Your task to perform on an android device: Show the shopping cart on bestbuy.com. Add macbook to the cart on bestbuy.com, then select checkout. Image 0: 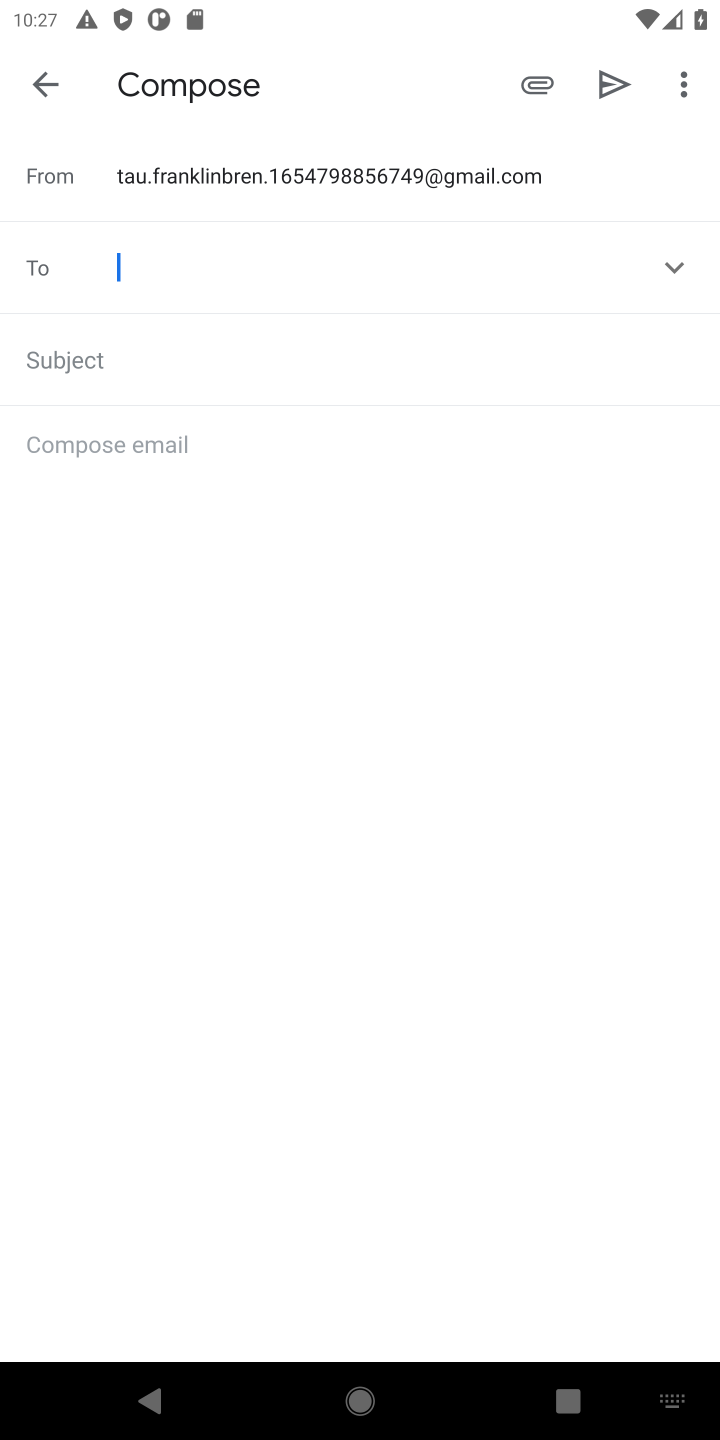
Step 0: press home button
Your task to perform on an android device: Show the shopping cart on bestbuy.com. Add macbook to the cart on bestbuy.com, then select checkout. Image 1: 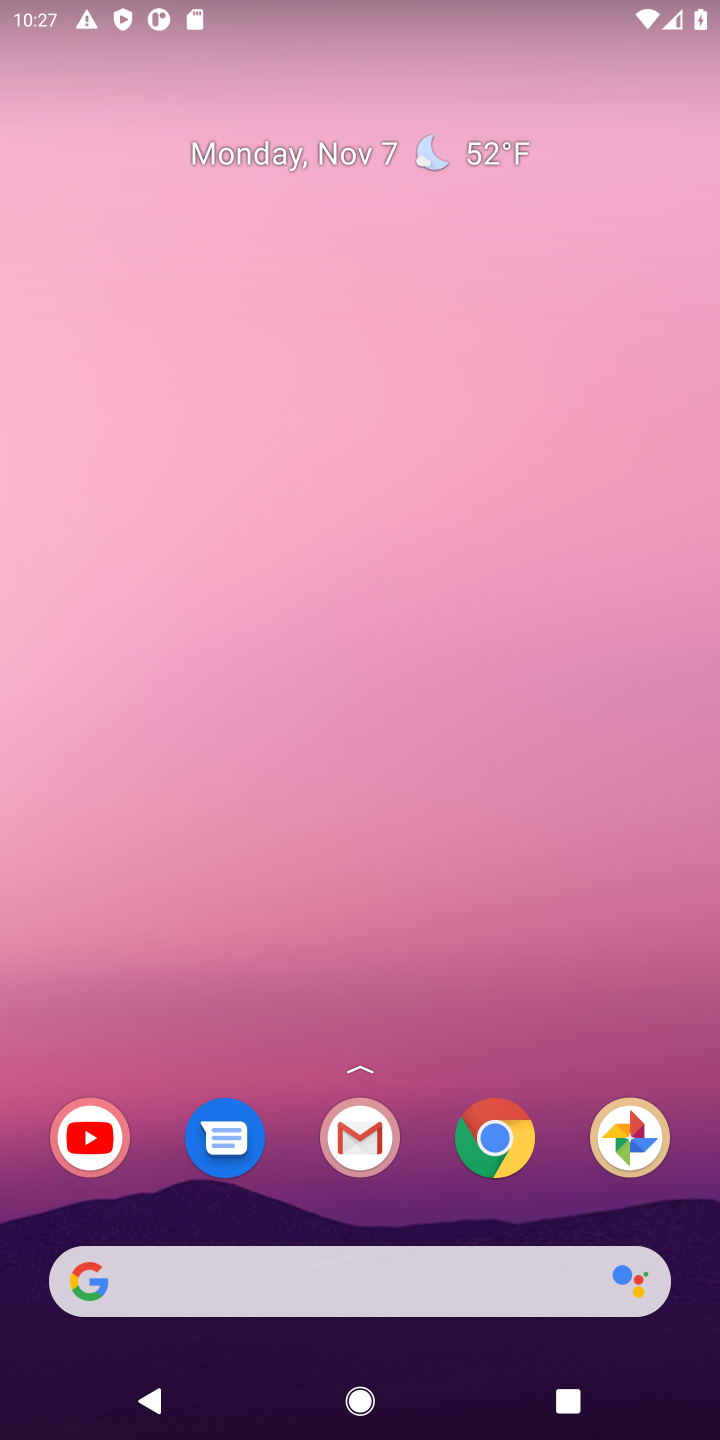
Step 1: click (473, 1155)
Your task to perform on an android device: Show the shopping cart on bestbuy.com. Add macbook to the cart on bestbuy.com, then select checkout. Image 2: 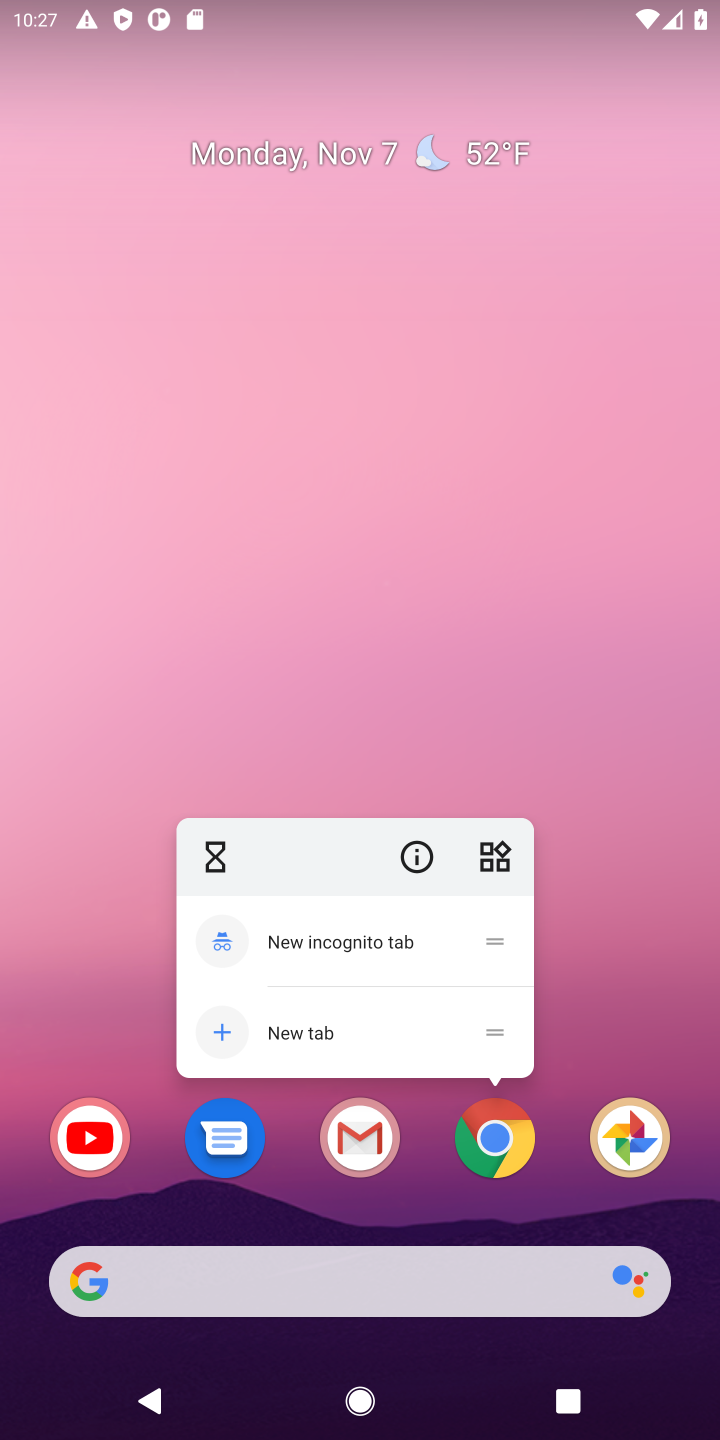
Step 2: click (481, 1146)
Your task to perform on an android device: Show the shopping cart on bestbuy.com. Add macbook to the cart on bestbuy.com, then select checkout. Image 3: 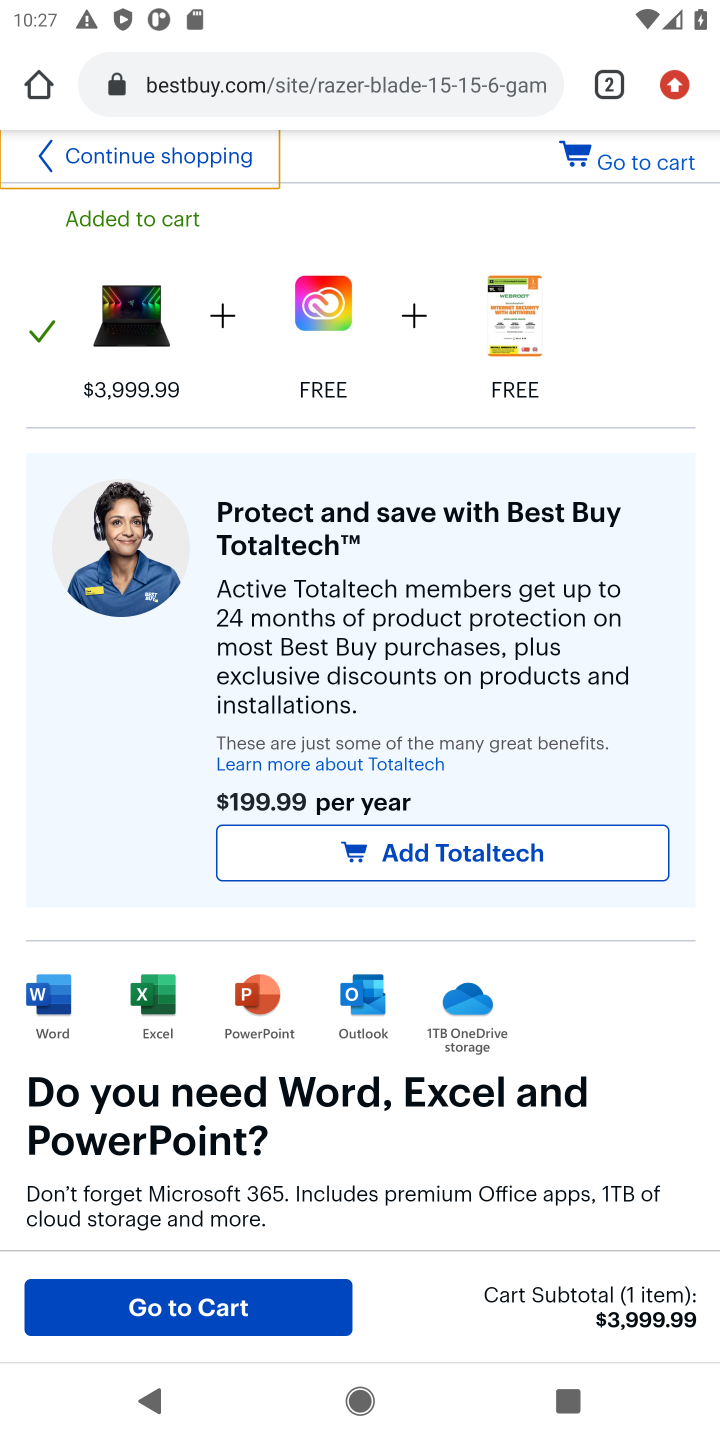
Step 3: click (265, 71)
Your task to perform on an android device: Show the shopping cart on bestbuy.com. Add macbook to the cart on bestbuy.com, then select checkout. Image 4: 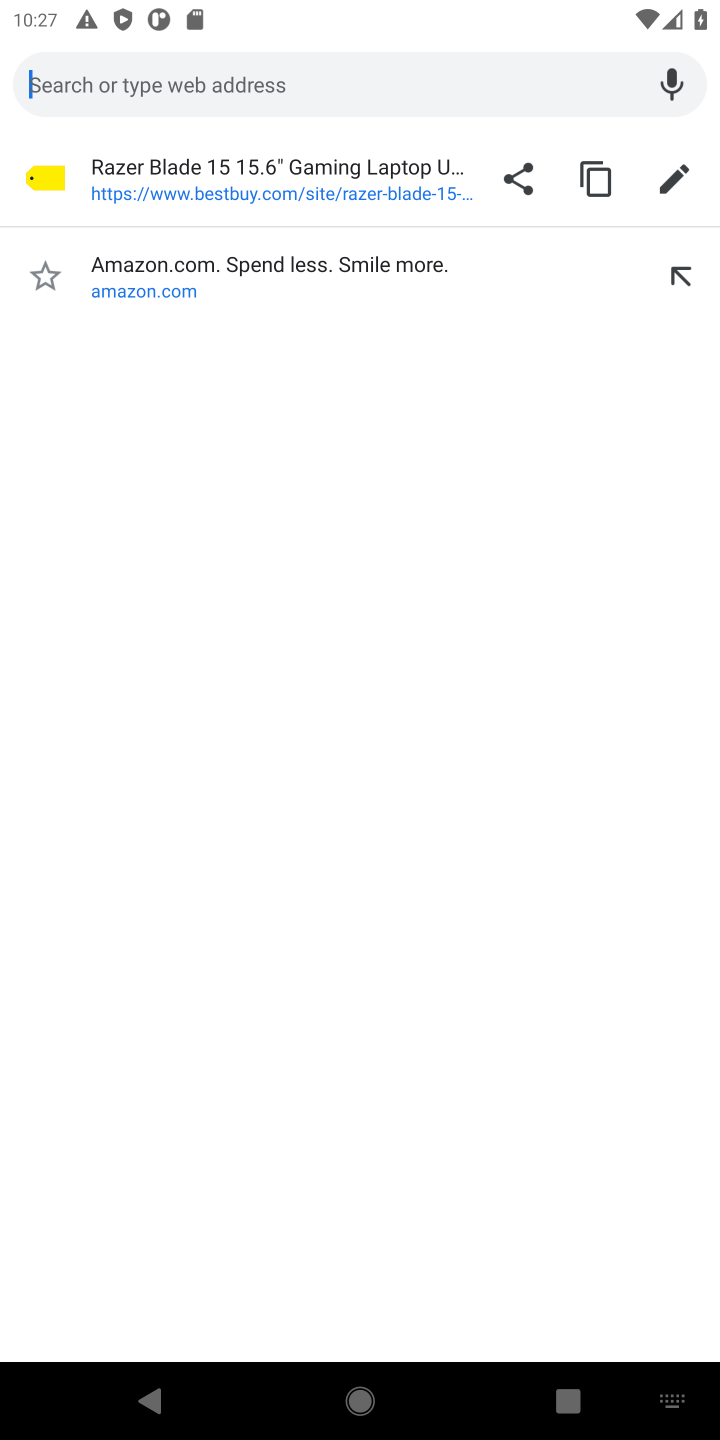
Step 4: type "bestbuy"
Your task to perform on an android device: Show the shopping cart on bestbuy.com. Add macbook to the cart on bestbuy.com, then select checkout. Image 5: 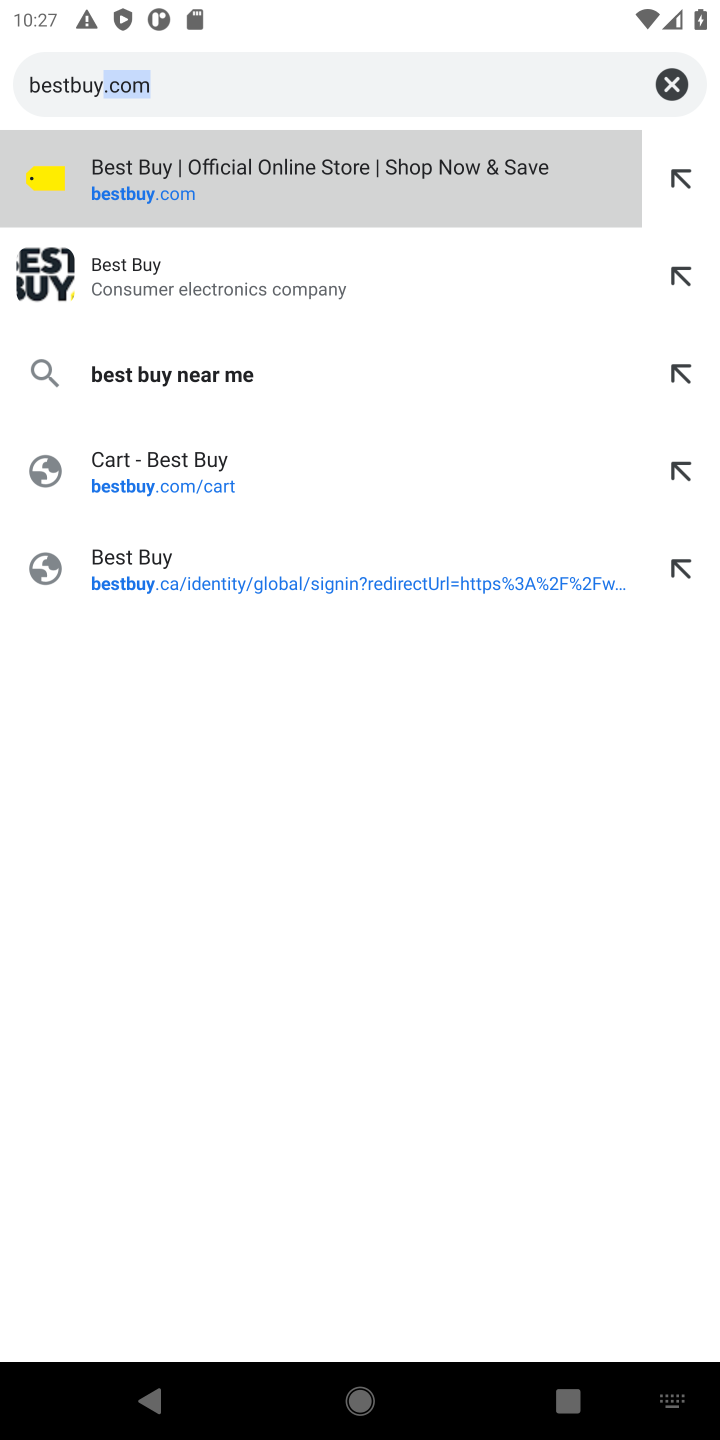
Step 5: click (168, 272)
Your task to perform on an android device: Show the shopping cart on bestbuy.com. Add macbook to the cart on bestbuy.com, then select checkout. Image 6: 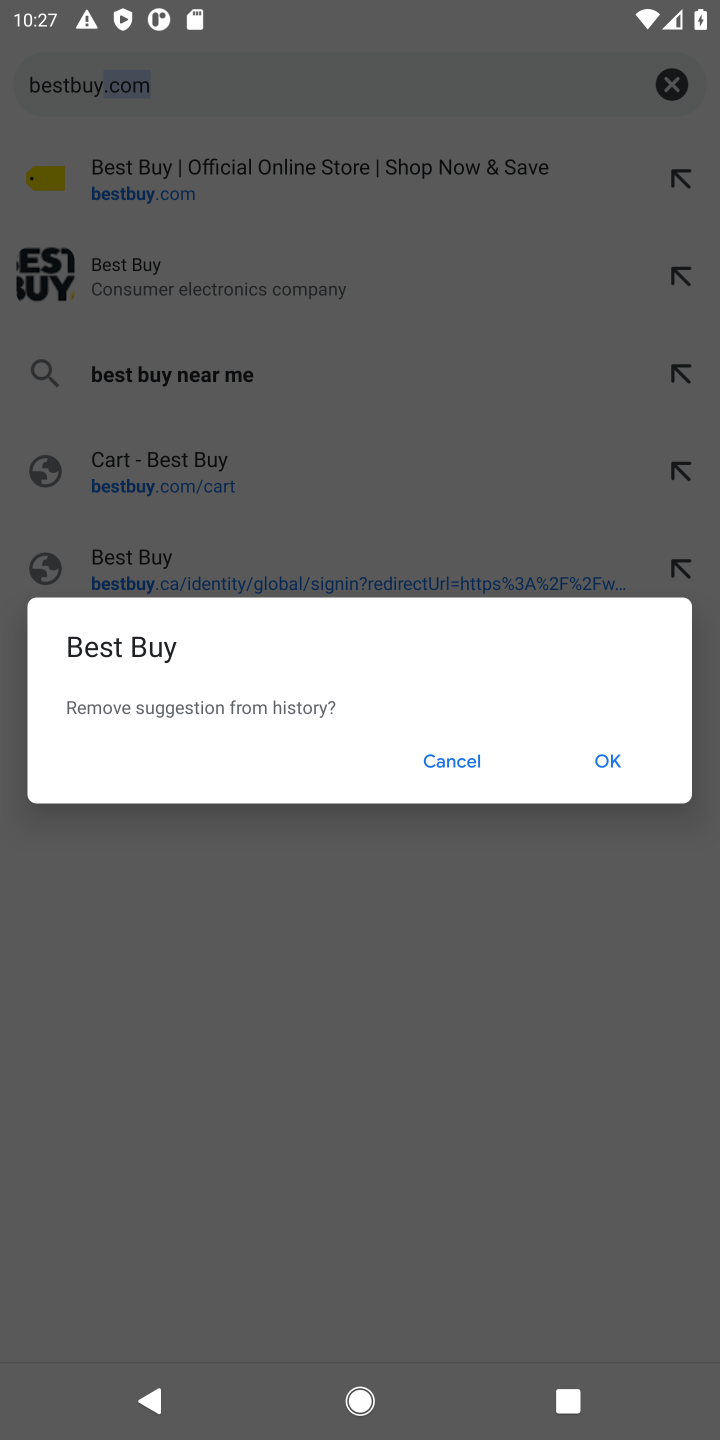
Step 6: click (605, 758)
Your task to perform on an android device: Show the shopping cart on bestbuy.com. Add macbook to the cart on bestbuy.com, then select checkout. Image 7: 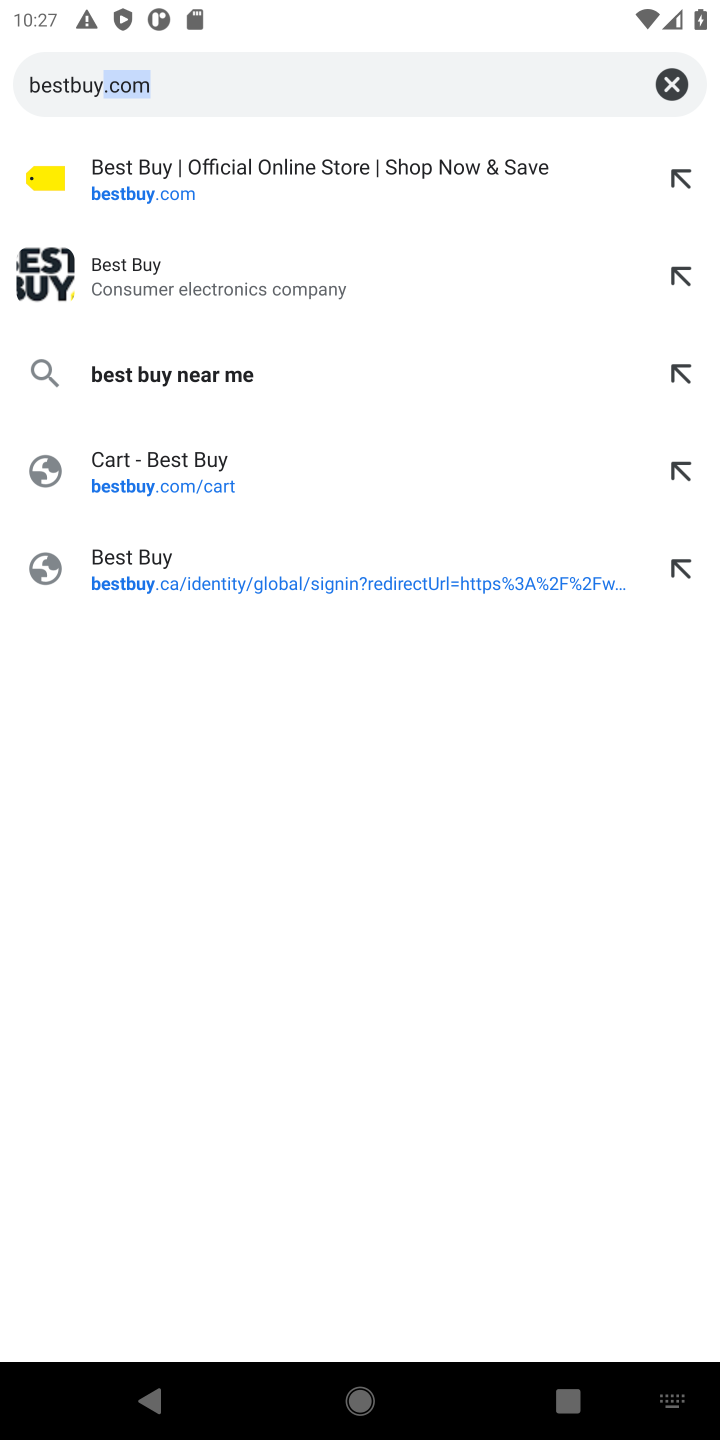
Step 7: click (121, 271)
Your task to perform on an android device: Show the shopping cart on bestbuy.com. Add macbook to the cart on bestbuy.com, then select checkout. Image 8: 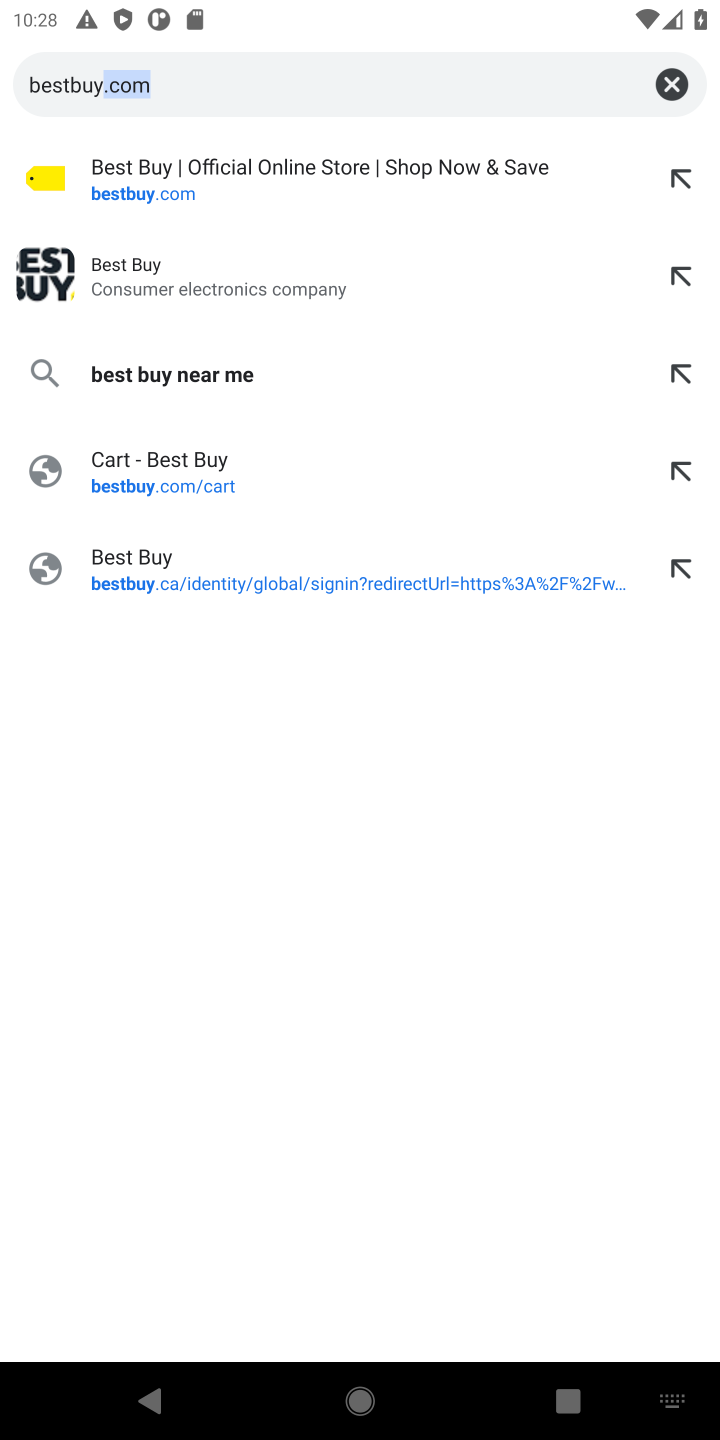
Step 8: click (121, 271)
Your task to perform on an android device: Show the shopping cart on bestbuy.com. Add macbook to the cart on bestbuy.com, then select checkout. Image 9: 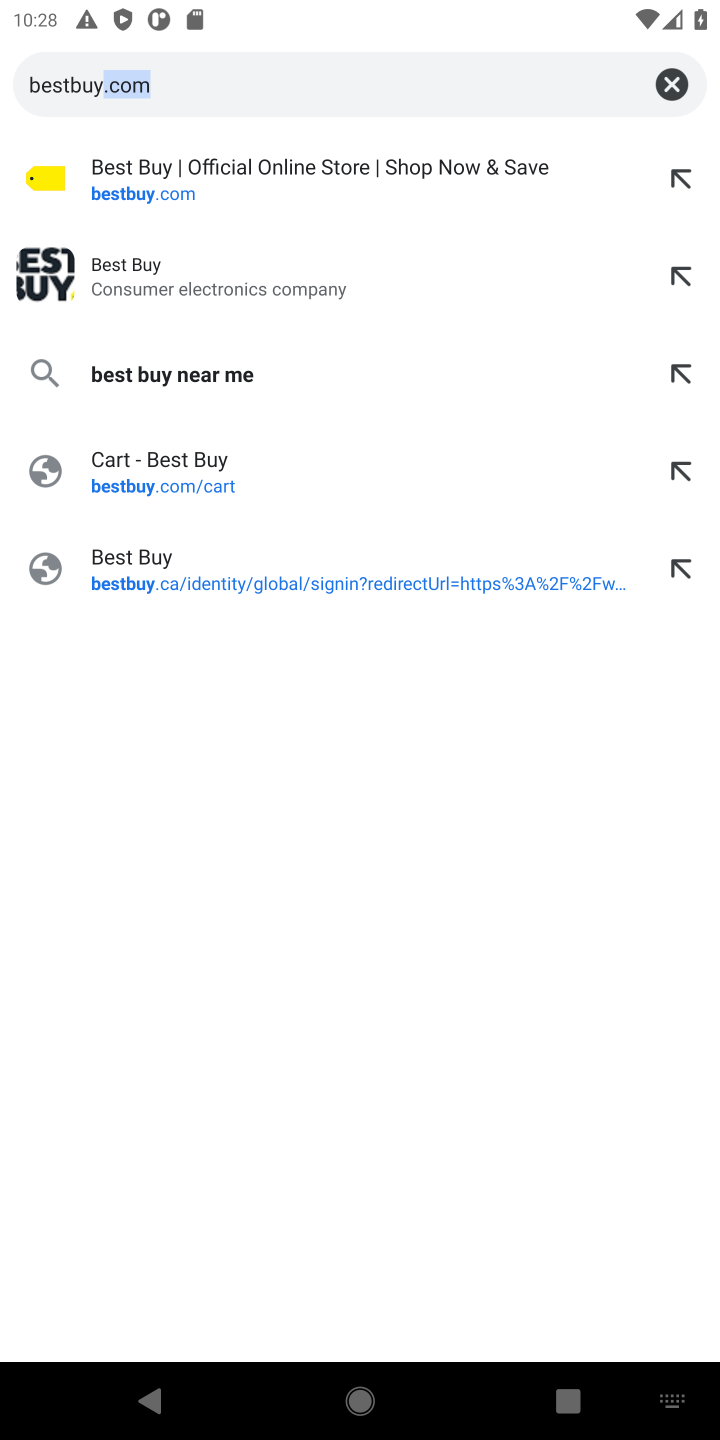
Step 9: click (131, 269)
Your task to perform on an android device: Show the shopping cart on bestbuy.com. Add macbook to the cart on bestbuy.com, then select checkout. Image 10: 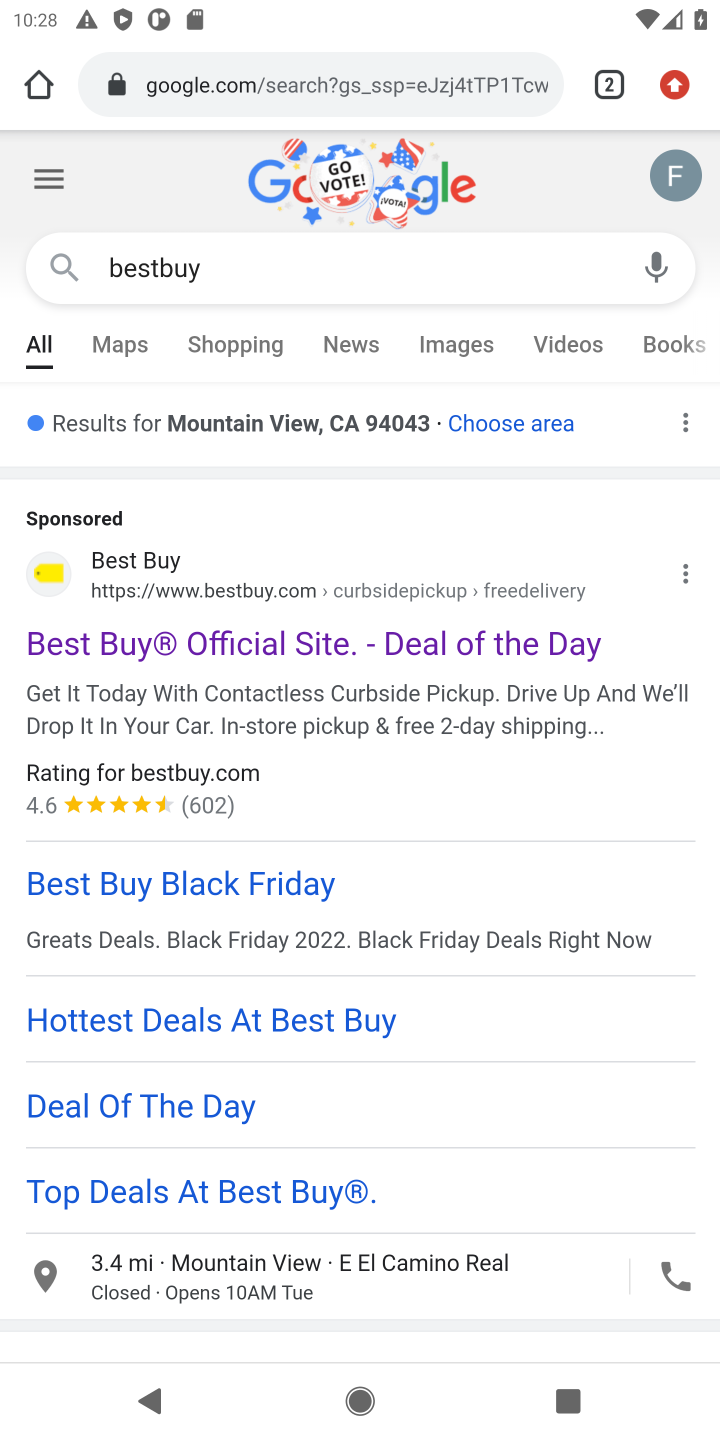
Step 10: drag from (205, 1004) to (287, 537)
Your task to perform on an android device: Show the shopping cart on bestbuy.com. Add macbook to the cart on bestbuy.com, then select checkout. Image 11: 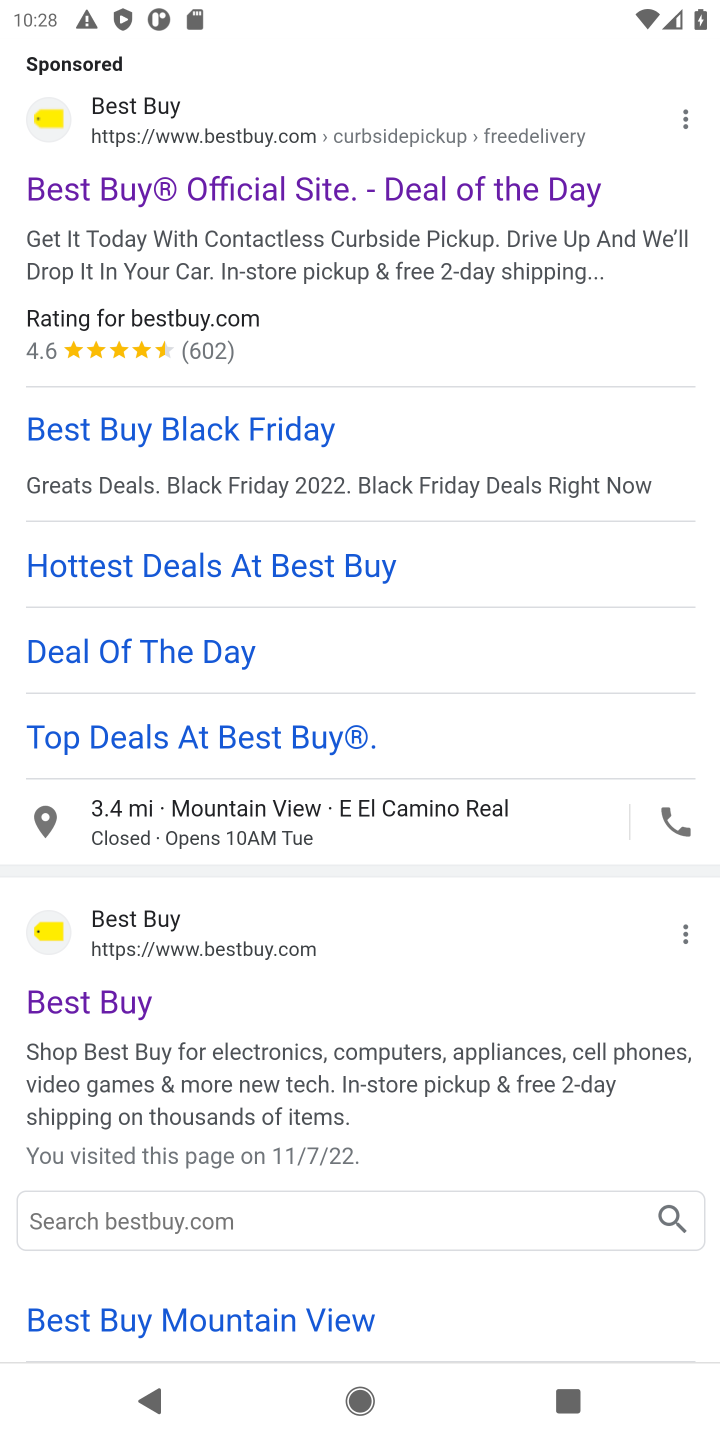
Step 11: click (65, 998)
Your task to perform on an android device: Show the shopping cart on bestbuy.com. Add macbook to the cart on bestbuy.com, then select checkout. Image 12: 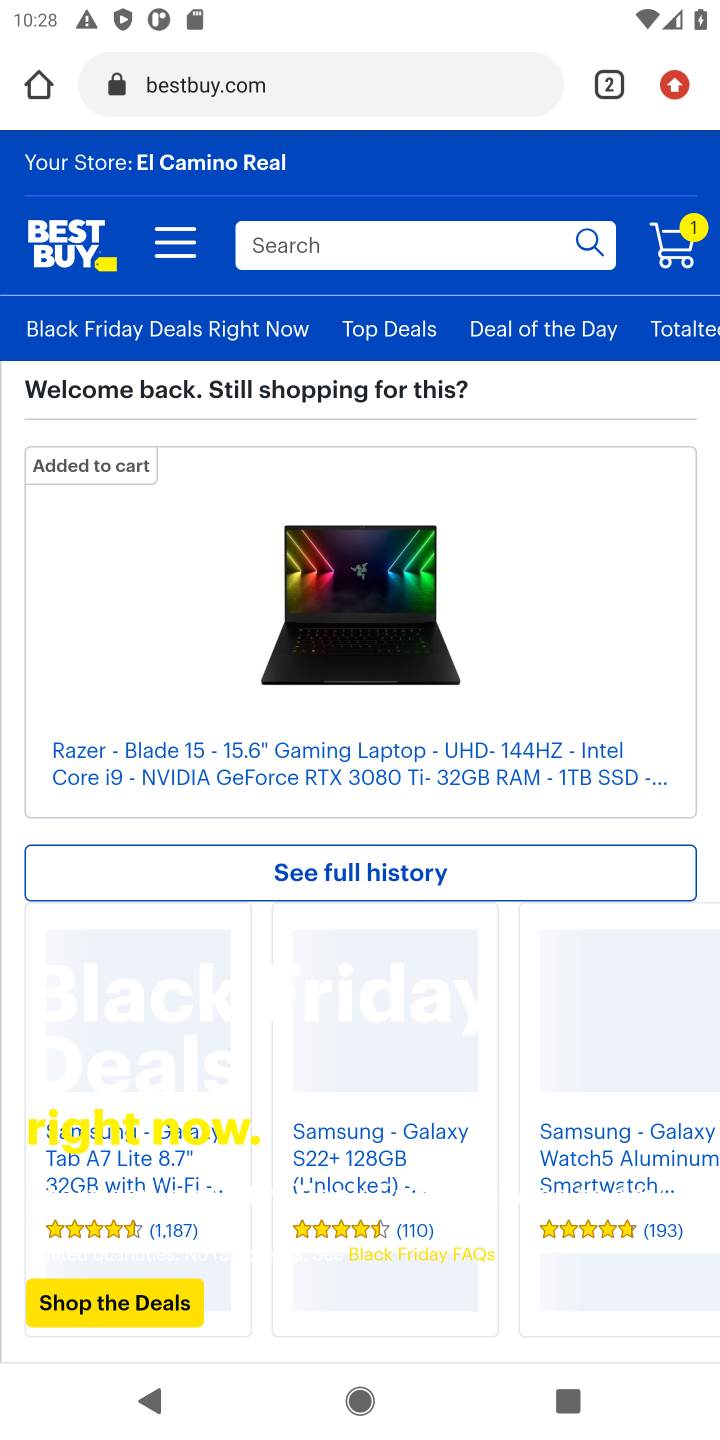
Step 12: click (388, 243)
Your task to perform on an android device: Show the shopping cart on bestbuy.com. Add macbook to the cart on bestbuy.com, then select checkout. Image 13: 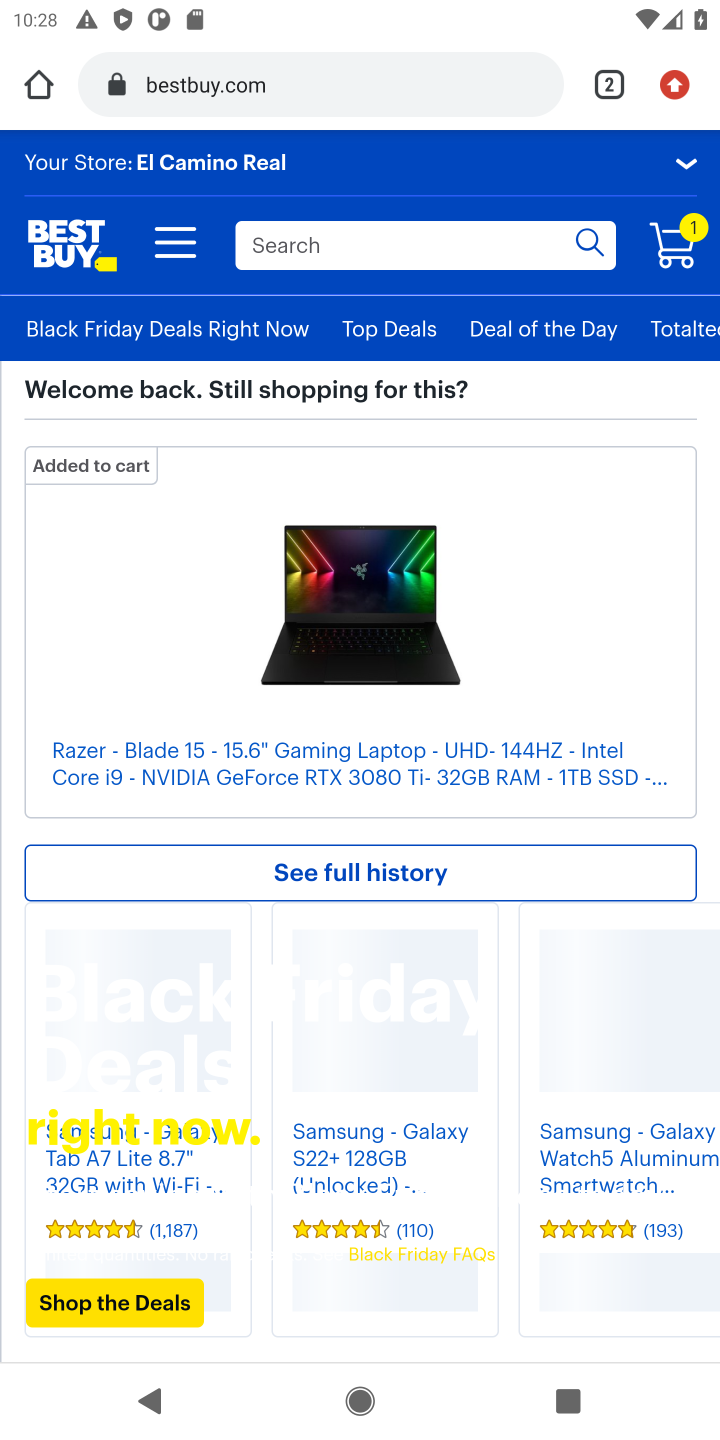
Step 13: click (322, 237)
Your task to perform on an android device: Show the shopping cart on bestbuy.com. Add macbook to the cart on bestbuy.com, then select checkout. Image 14: 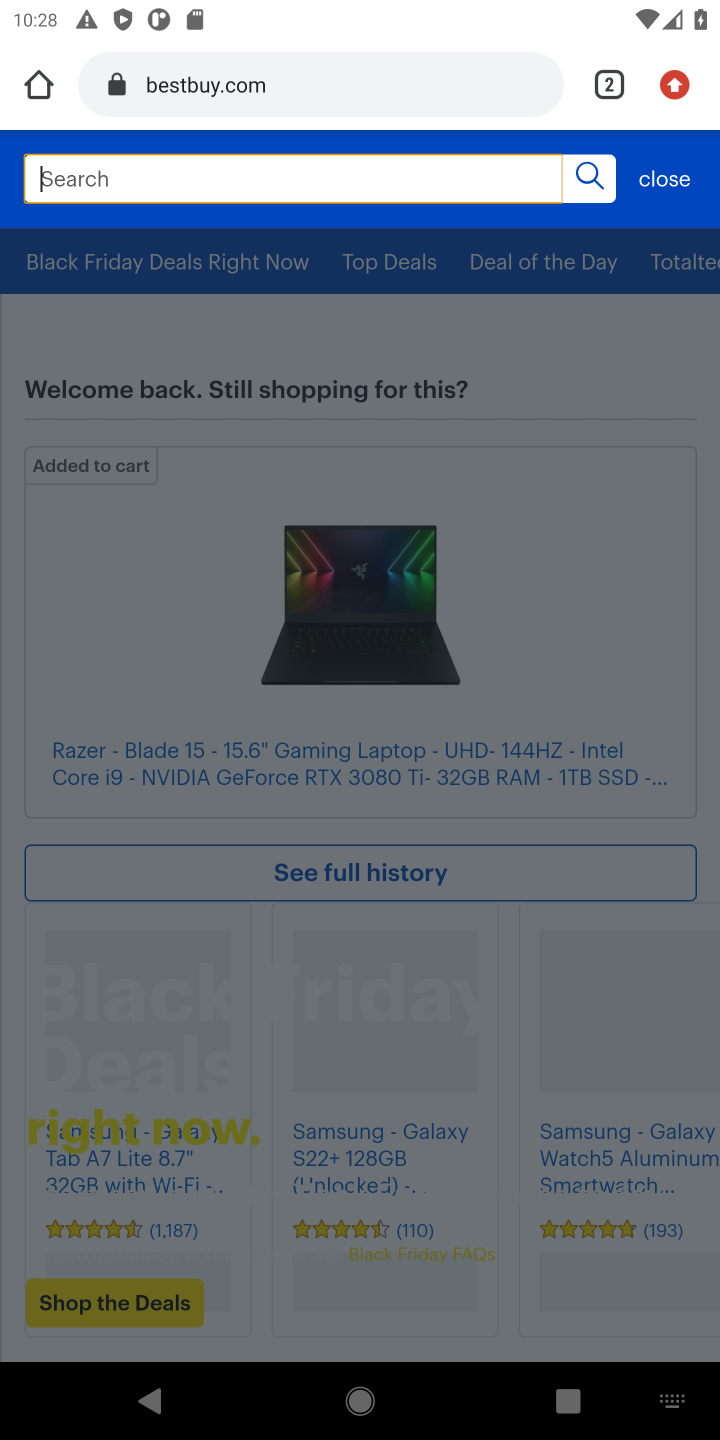
Step 14: type "macbook"
Your task to perform on an android device: Show the shopping cart on bestbuy.com. Add macbook to the cart on bestbuy.com, then select checkout. Image 15: 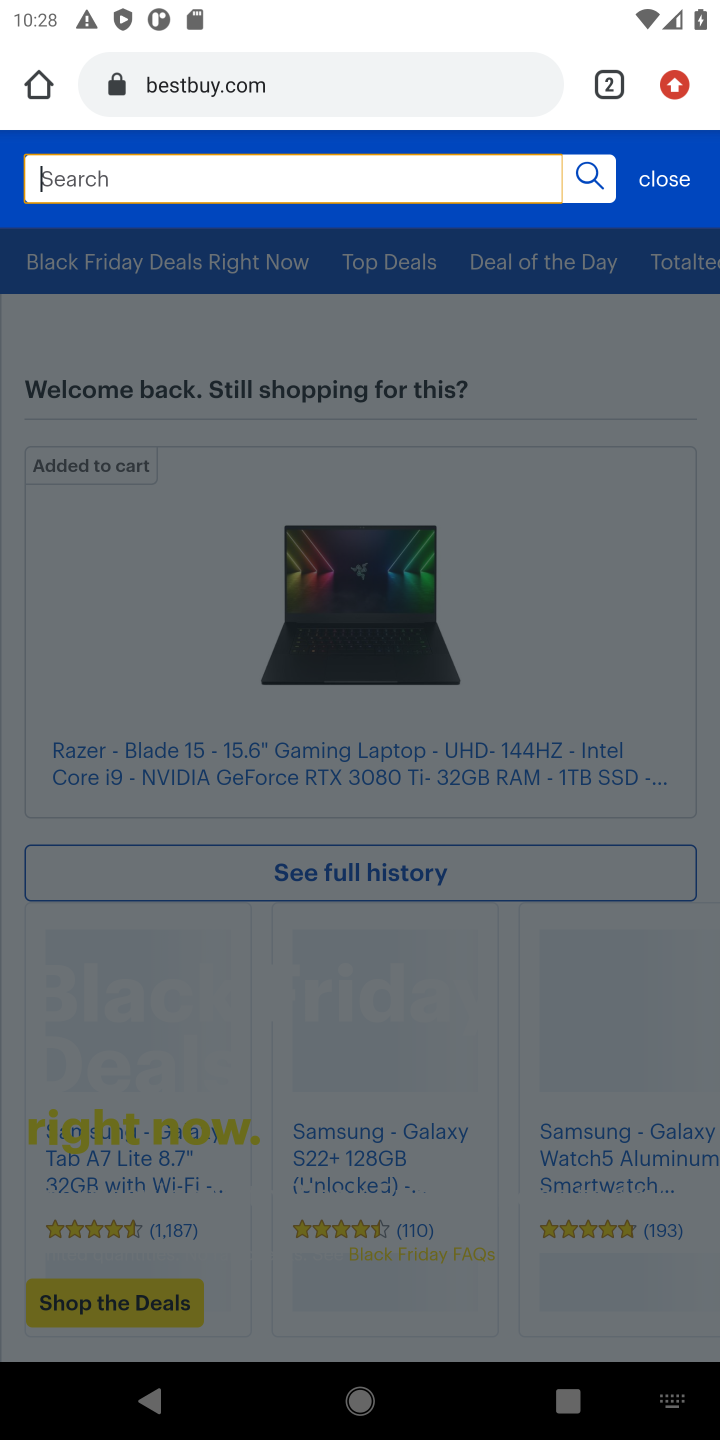
Step 15: type ""
Your task to perform on an android device: Show the shopping cart on bestbuy.com. Add macbook to the cart on bestbuy.com, then select checkout. Image 16: 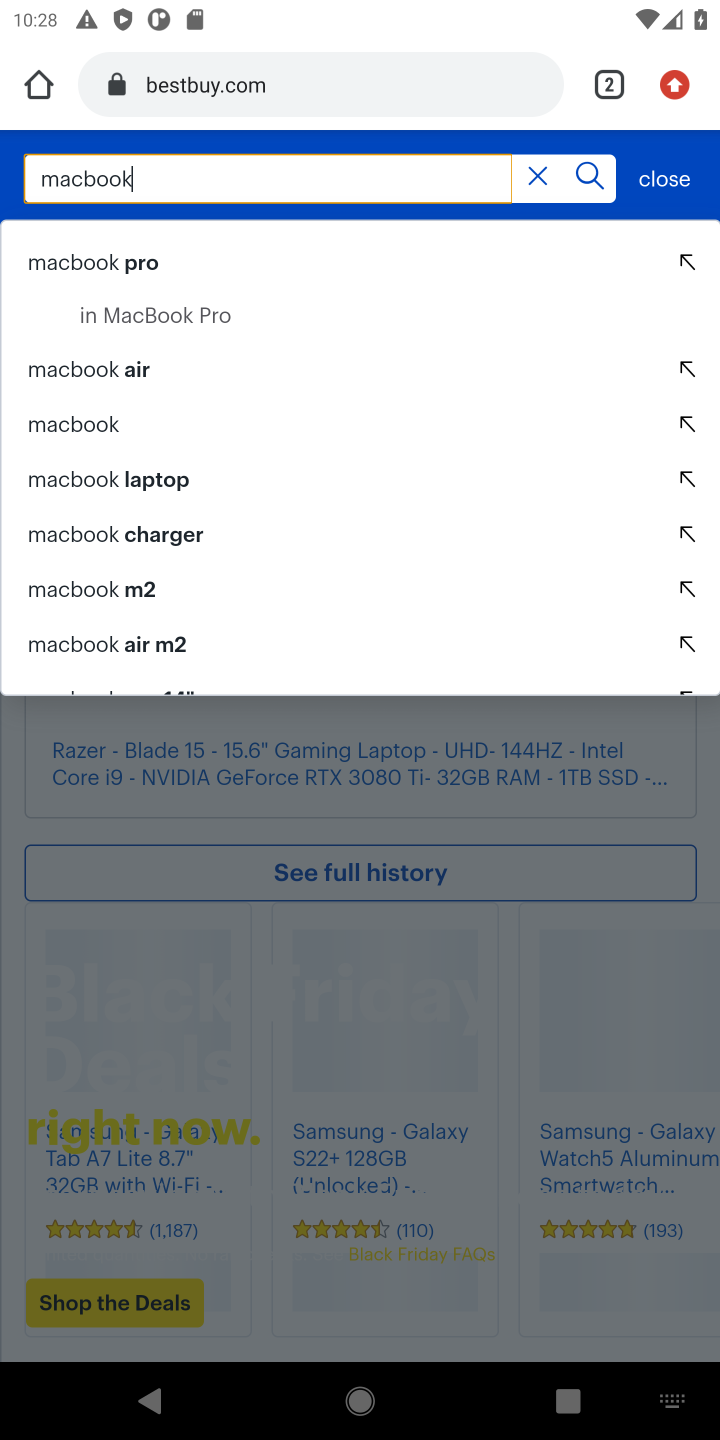
Step 16: click (85, 417)
Your task to perform on an android device: Show the shopping cart on bestbuy.com. Add macbook to the cart on bestbuy.com, then select checkout. Image 17: 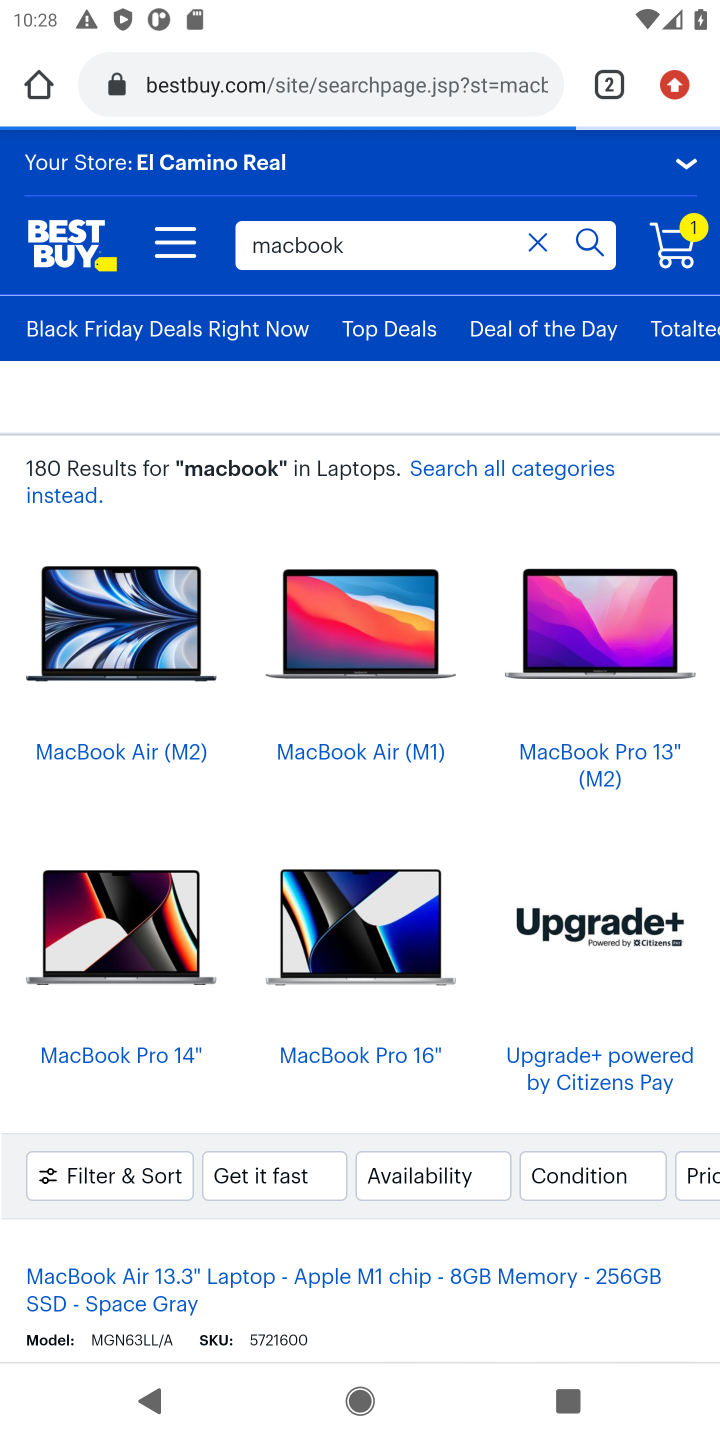
Step 17: click (349, 626)
Your task to perform on an android device: Show the shopping cart on bestbuy.com. Add macbook to the cart on bestbuy.com, then select checkout. Image 18: 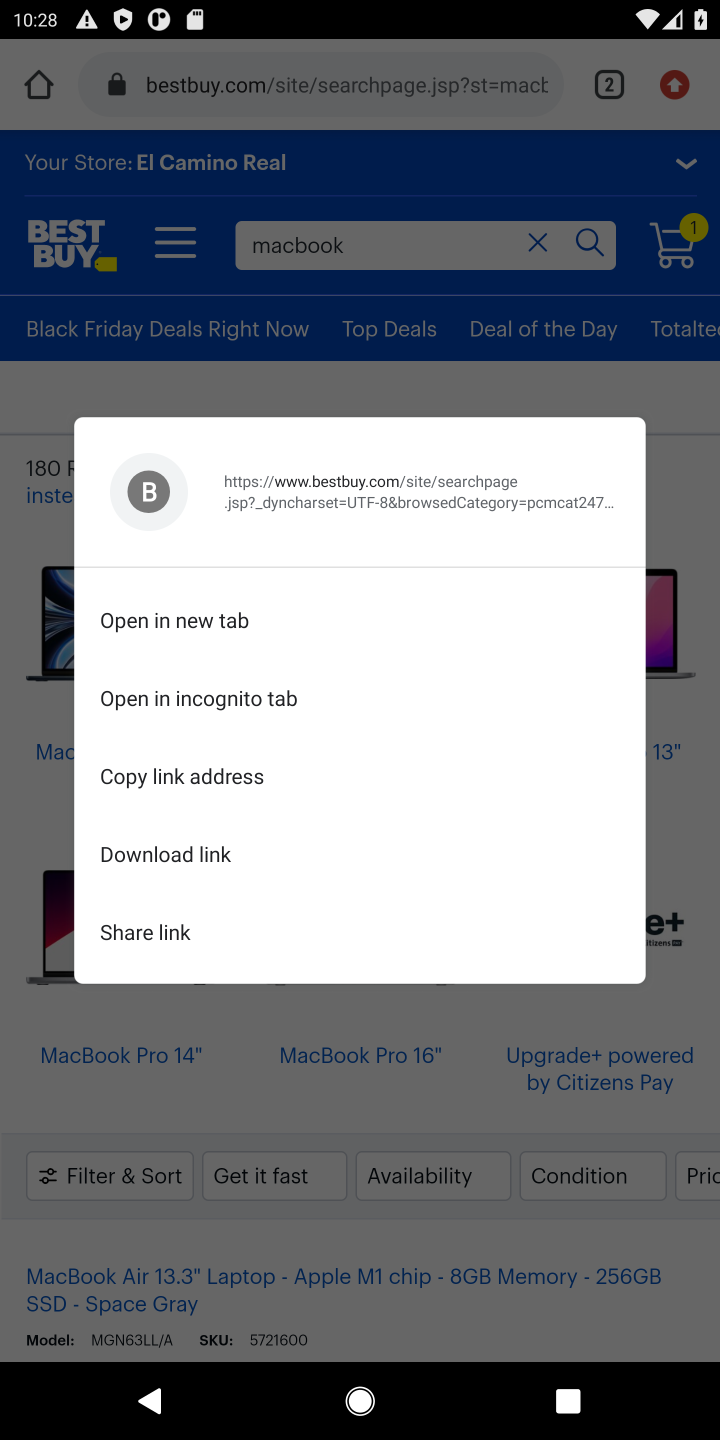
Step 18: click (202, 621)
Your task to perform on an android device: Show the shopping cart on bestbuy.com. Add macbook to the cart on bestbuy.com, then select checkout. Image 19: 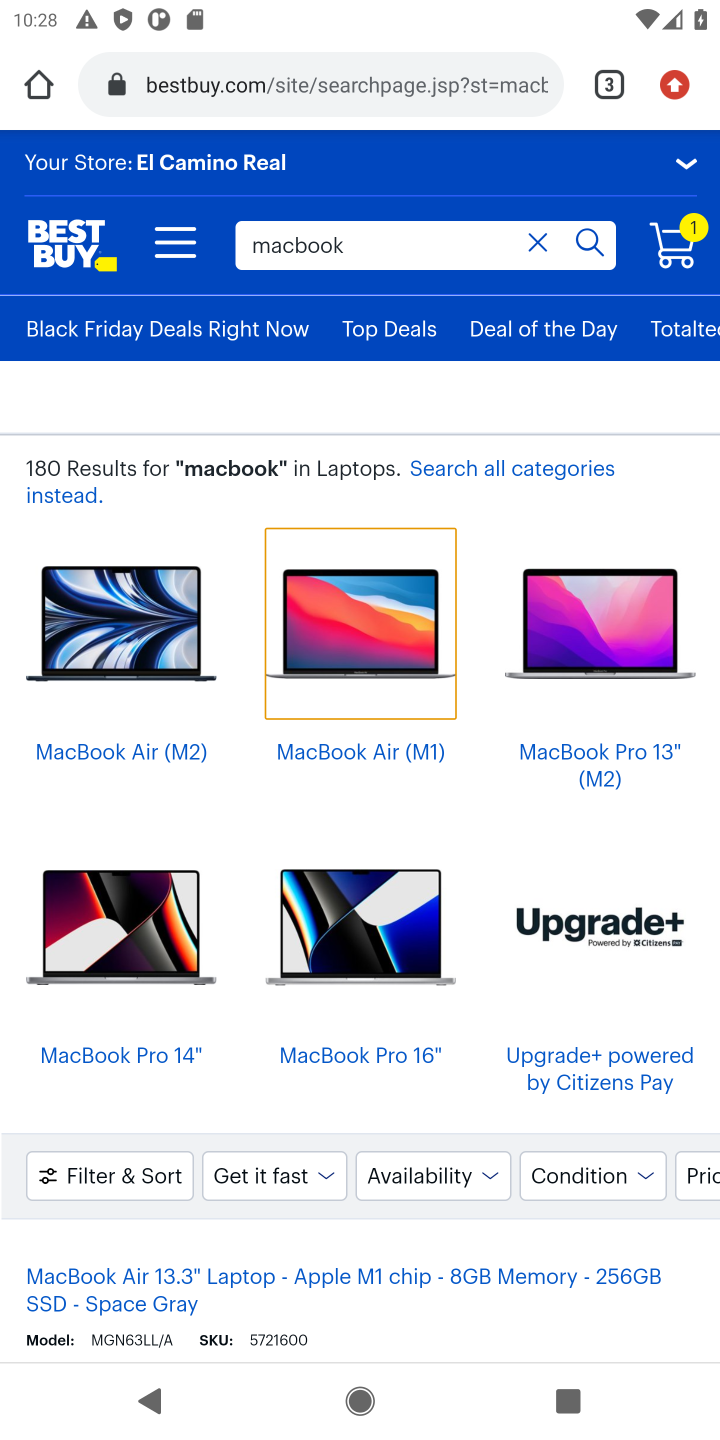
Step 19: drag from (300, 991) to (494, 342)
Your task to perform on an android device: Show the shopping cart on bestbuy.com. Add macbook to the cart on bestbuy.com, then select checkout. Image 20: 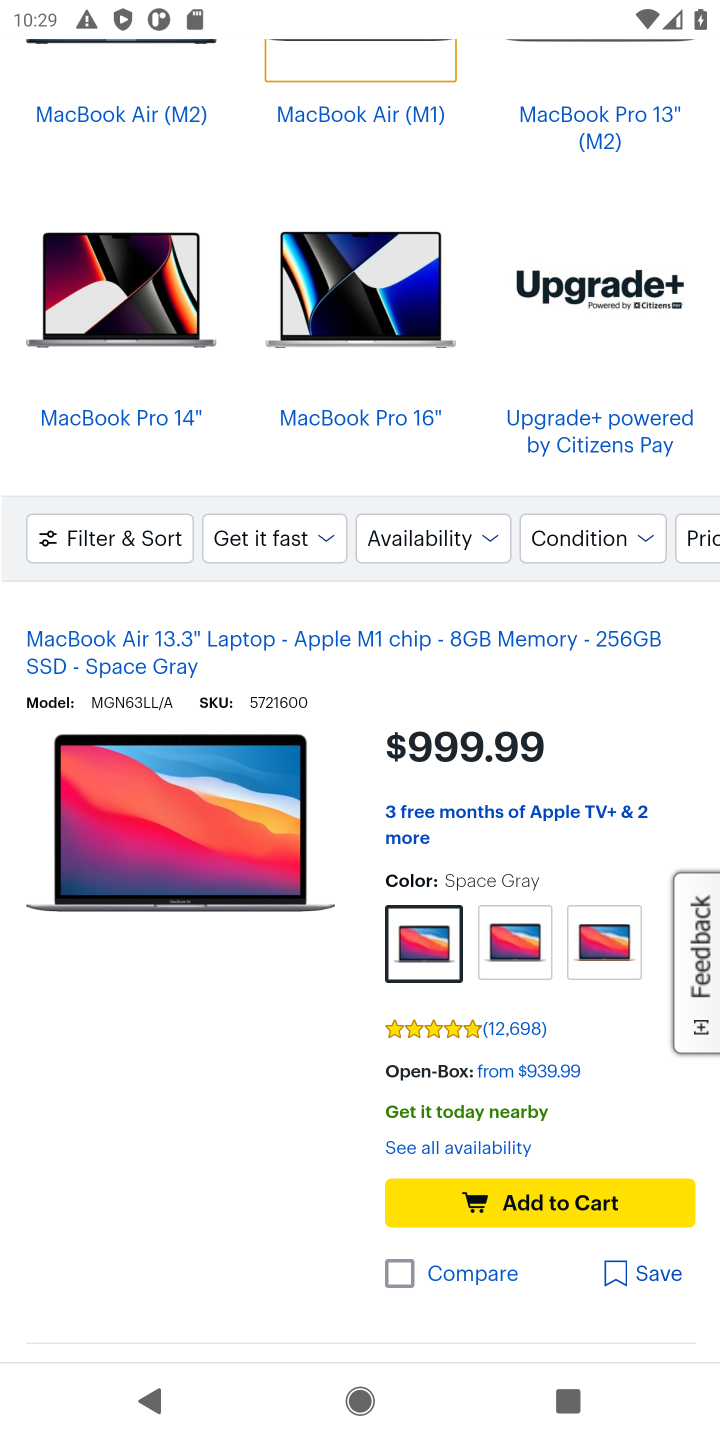
Step 20: click (543, 1206)
Your task to perform on an android device: Show the shopping cart on bestbuy.com. Add macbook to the cart on bestbuy.com, then select checkout. Image 21: 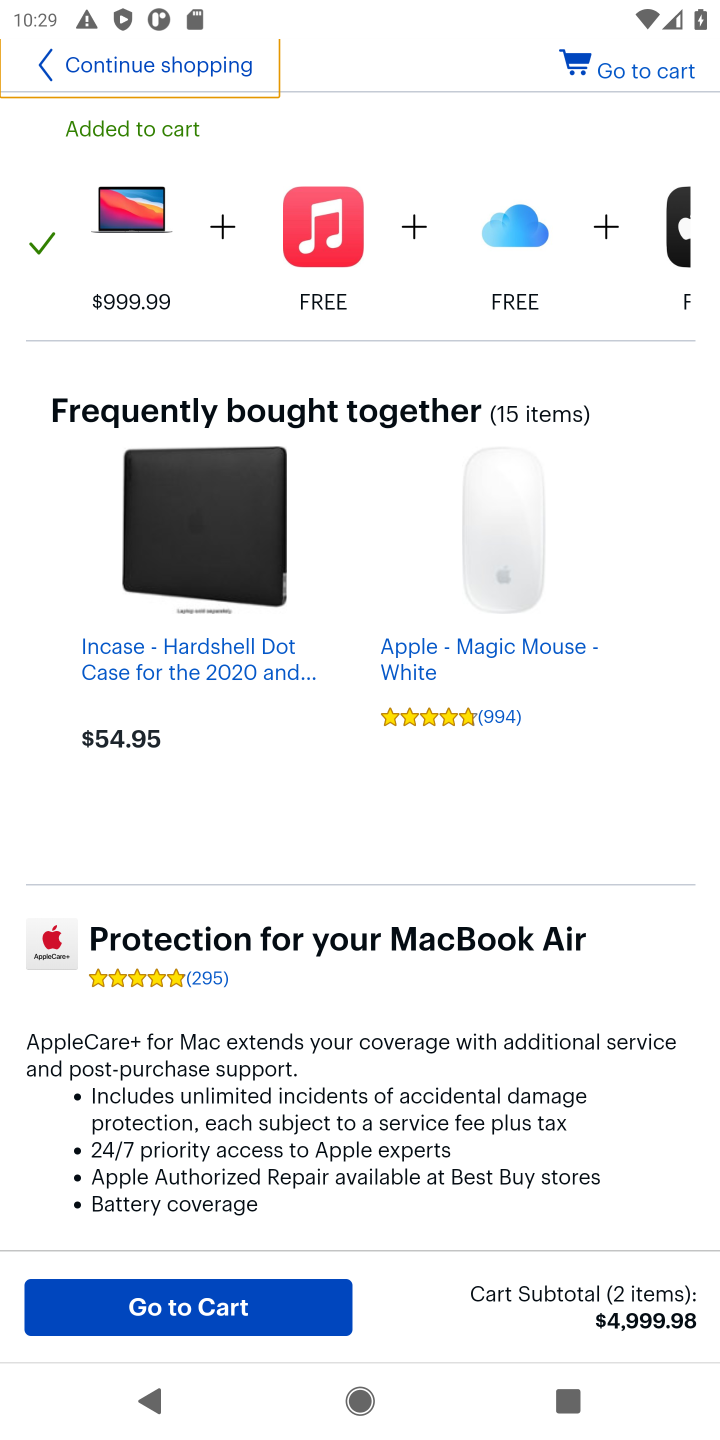
Step 21: click (241, 1313)
Your task to perform on an android device: Show the shopping cart on bestbuy.com. Add macbook to the cart on bestbuy.com, then select checkout. Image 22: 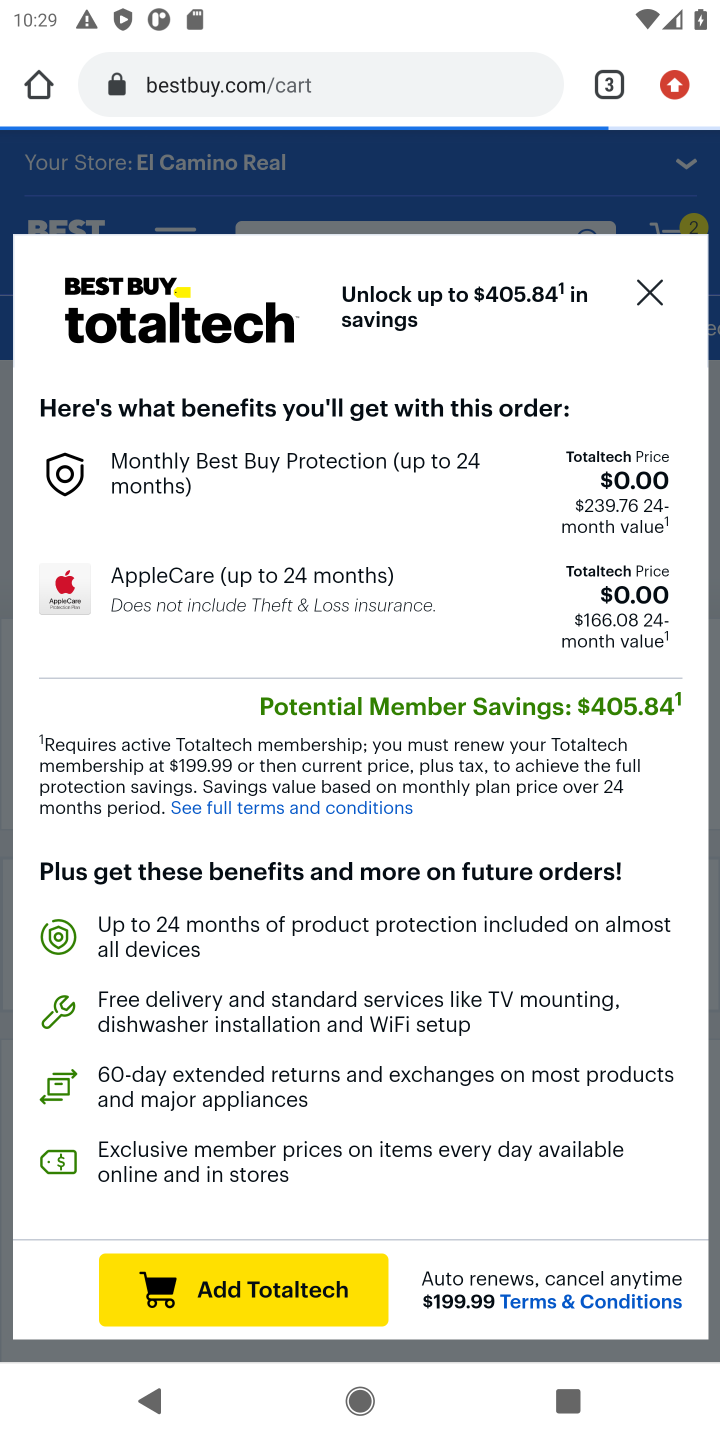
Step 22: click (652, 291)
Your task to perform on an android device: Show the shopping cart on bestbuy.com. Add macbook to the cart on bestbuy.com, then select checkout. Image 23: 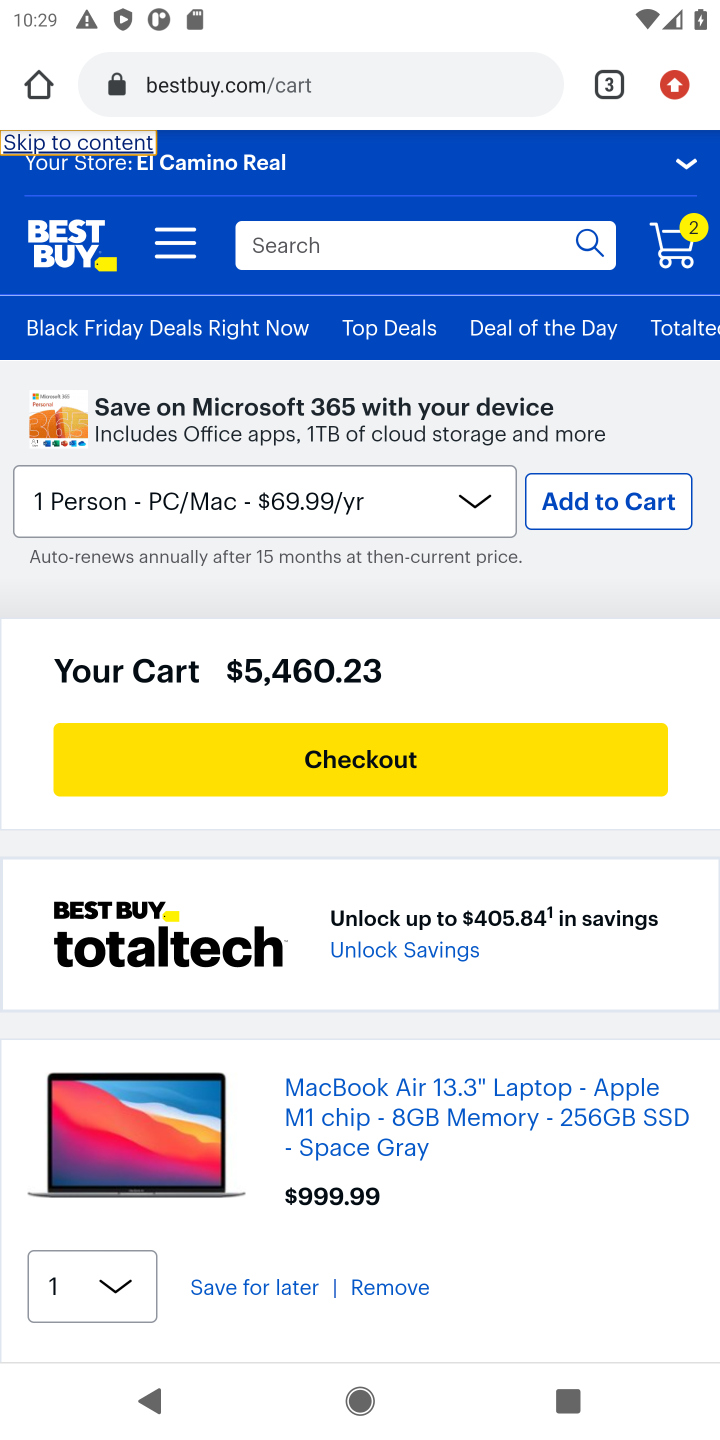
Step 23: click (500, 755)
Your task to perform on an android device: Show the shopping cart on bestbuy.com. Add macbook to the cart on bestbuy.com, then select checkout. Image 24: 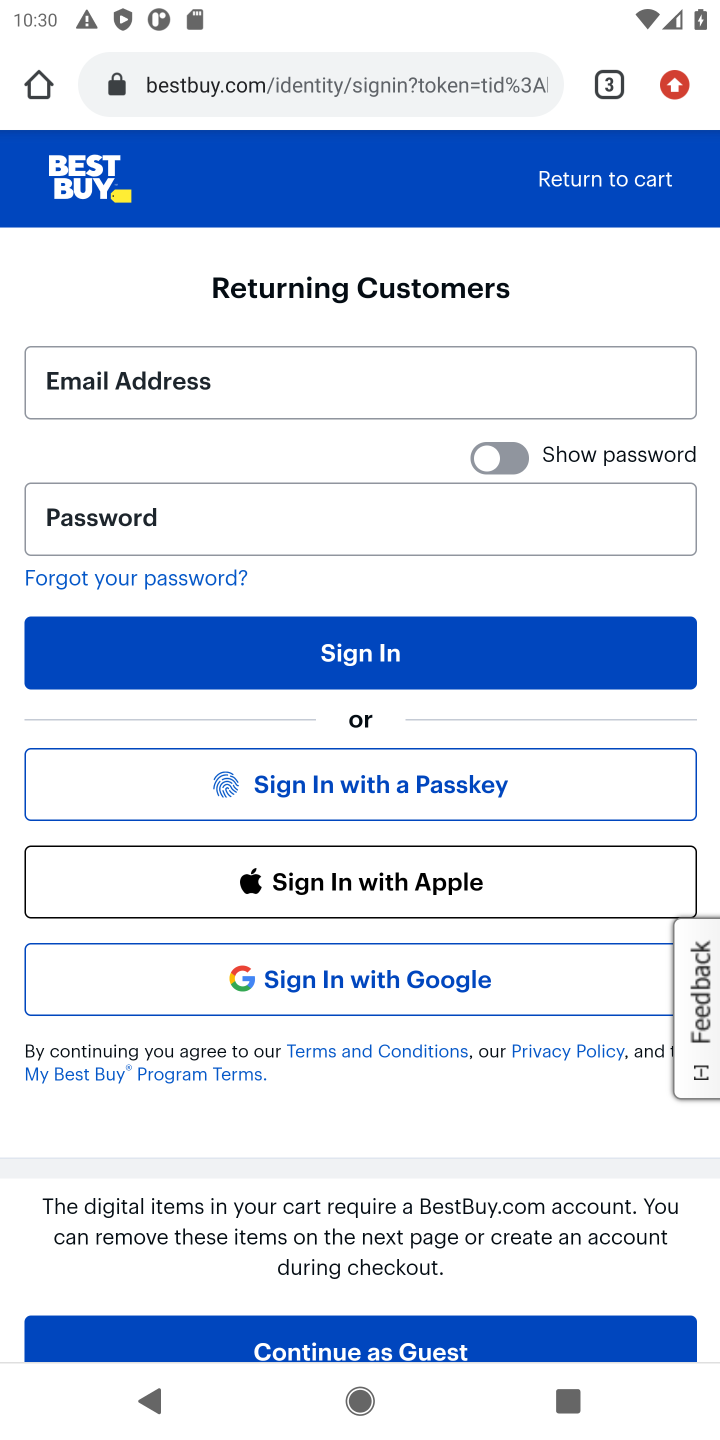
Step 24: task complete